Your task to perform on an android device: turn on priority inbox in the gmail app Image 0: 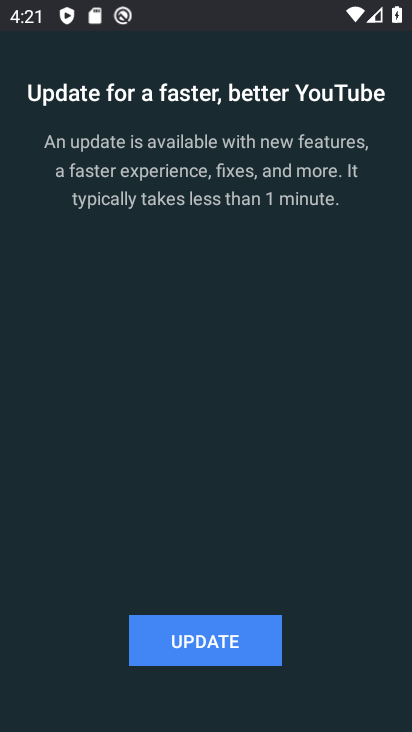
Step 0: press home button
Your task to perform on an android device: turn on priority inbox in the gmail app Image 1: 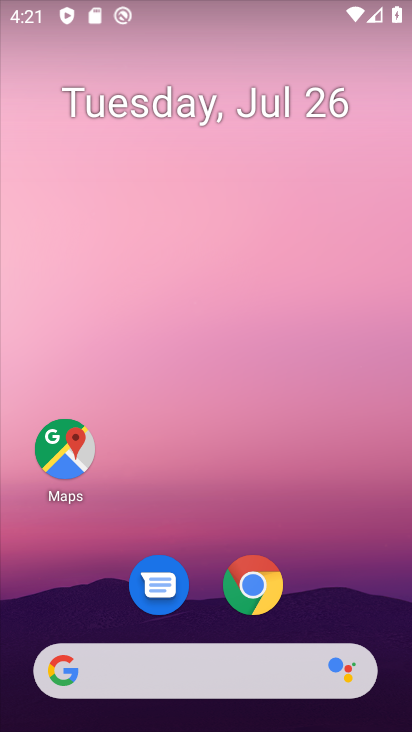
Step 1: drag from (318, 576) to (317, 65)
Your task to perform on an android device: turn on priority inbox in the gmail app Image 2: 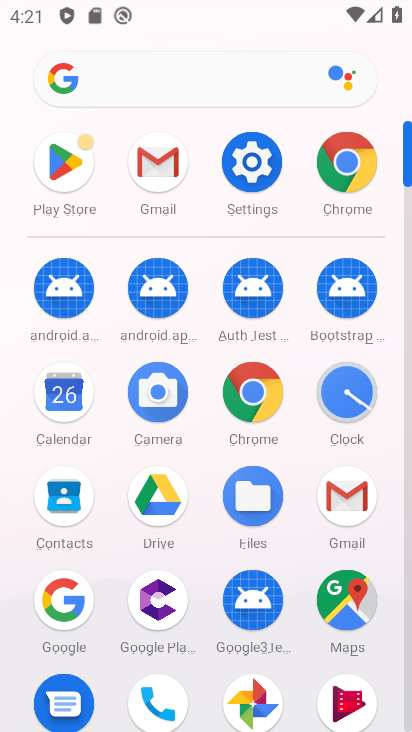
Step 2: click (169, 164)
Your task to perform on an android device: turn on priority inbox in the gmail app Image 3: 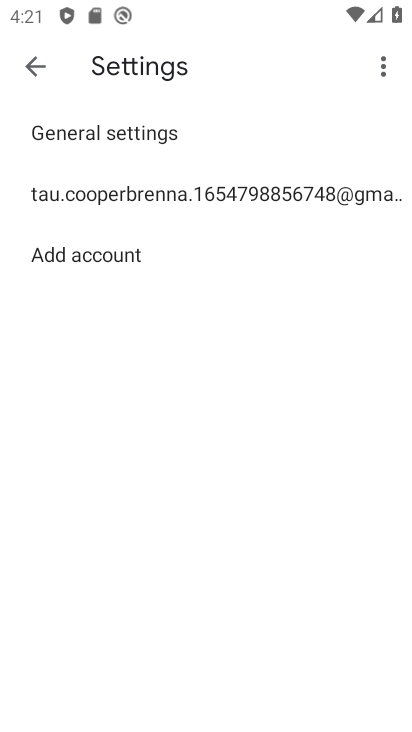
Step 3: click (177, 188)
Your task to perform on an android device: turn on priority inbox in the gmail app Image 4: 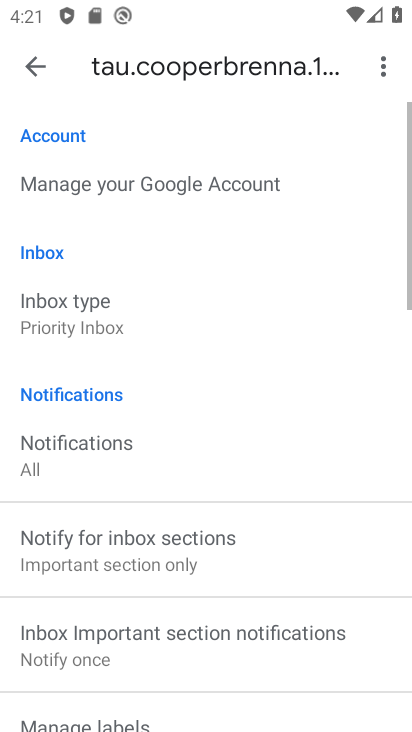
Step 4: click (100, 308)
Your task to perform on an android device: turn on priority inbox in the gmail app Image 5: 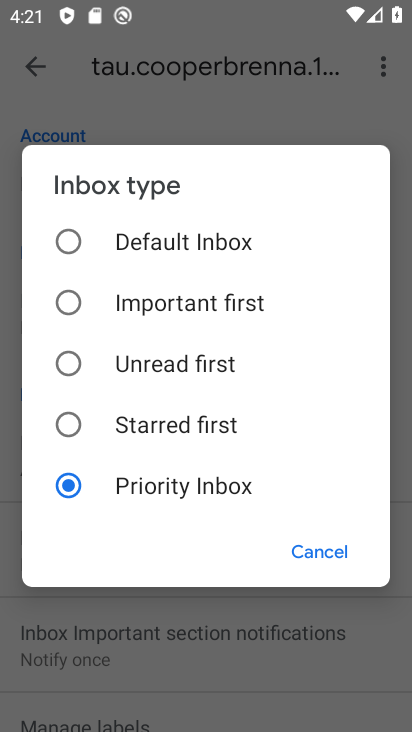
Step 5: click (127, 486)
Your task to perform on an android device: turn on priority inbox in the gmail app Image 6: 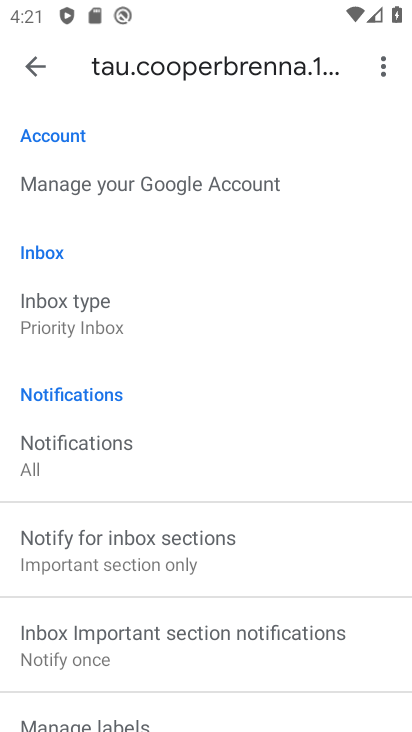
Step 6: task complete